Your task to perform on an android device: all mails in gmail Image 0: 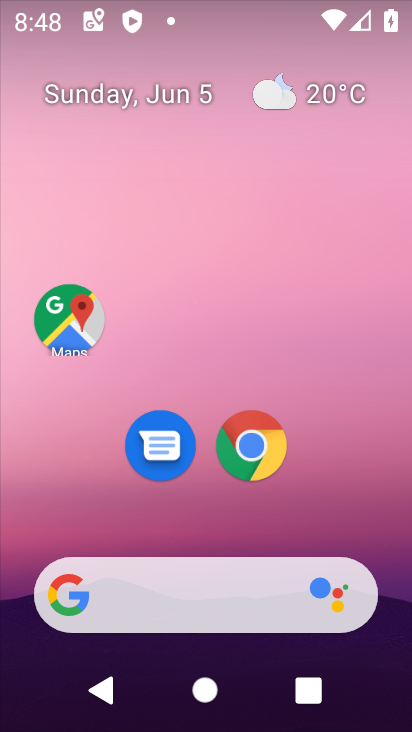
Step 0: drag from (233, 636) to (194, 38)
Your task to perform on an android device: all mails in gmail Image 1: 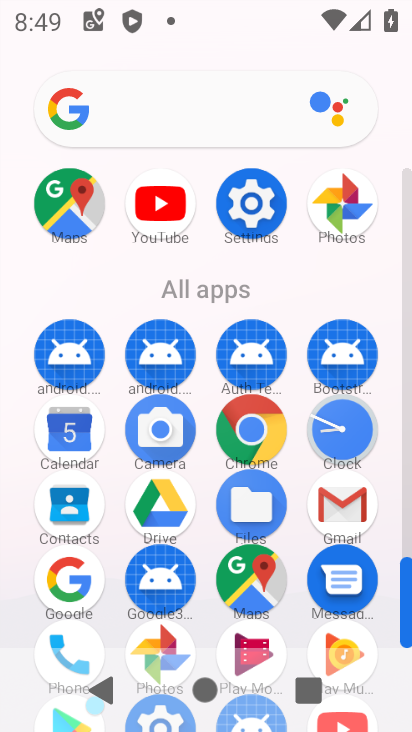
Step 1: click (347, 495)
Your task to perform on an android device: all mails in gmail Image 2: 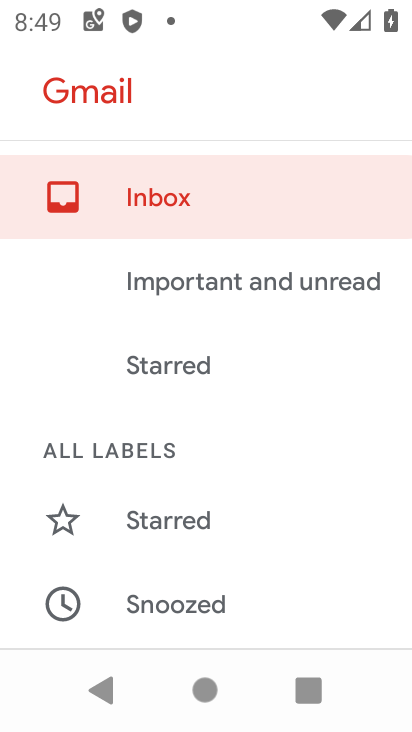
Step 2: drag from (193, 571) to (158, 64)
Your task to perform on an android device: all mails in gmail Image 3: 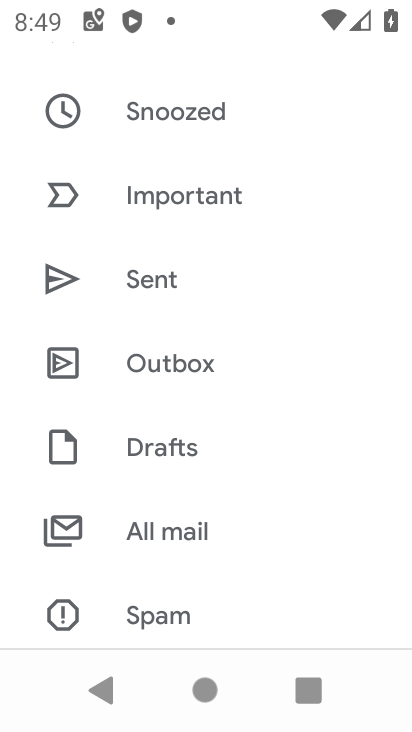
Step 3: click (200, 546)
Your task to perform on an android device: all mails in gmail Image 4: 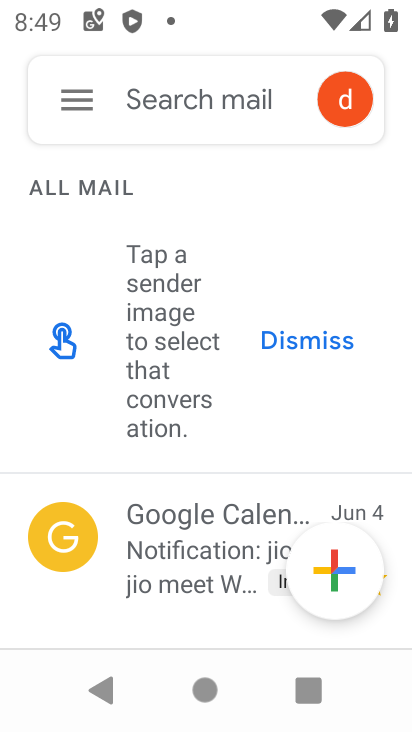
Step 4: task complete